Your task to perform on an android device: turn off notifications in google photos Image 0: 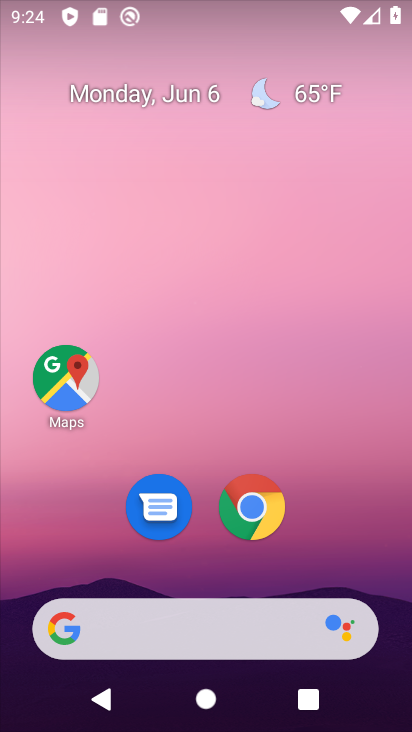
Step 0: drag from (311, 552) to (331, 251)
Your task to perform on an android device: turn off notifications in google photos Image 1: 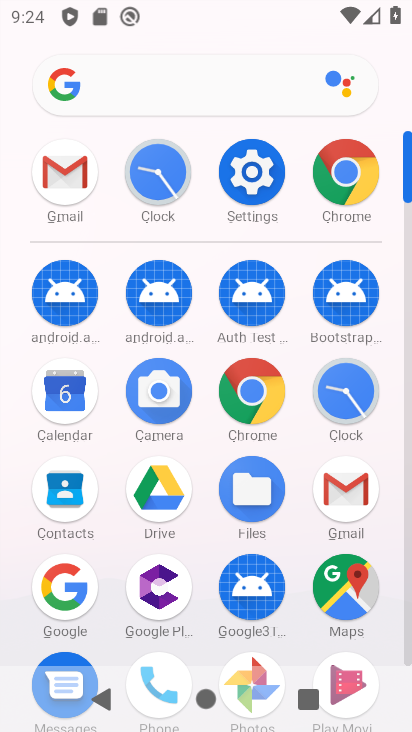
Step 1: drag from (216, 647) to (237, 413)
Your task to perform on an android device: turn off notifications in google photos Image 2: 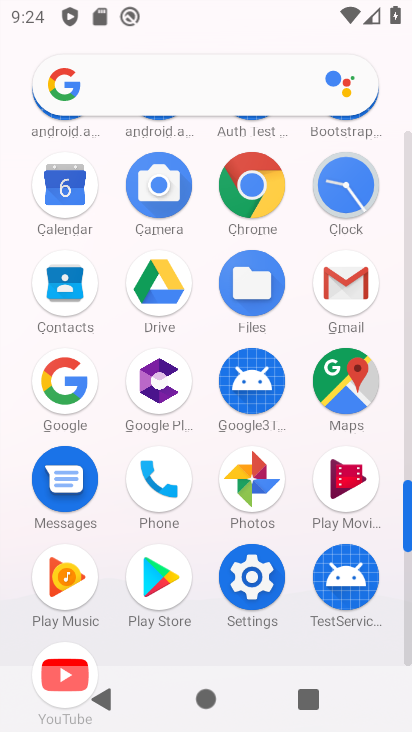
Step 2: click (253, 476)
Your task to perform on an android device: turn off notifications in google photos Image 3: 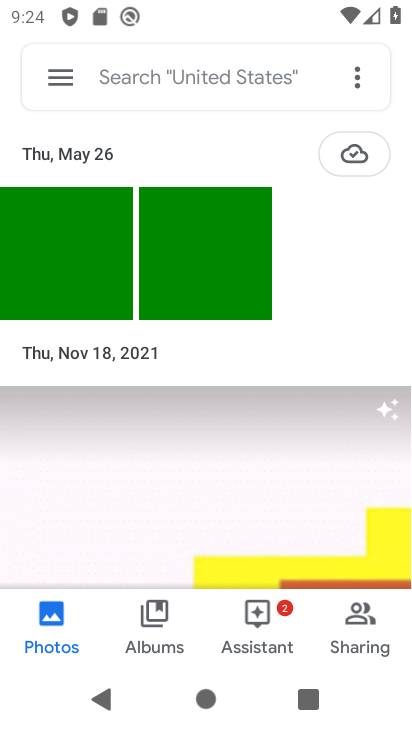
Step 3: click (53, 75)
Your task to perform on an android device: turn off notifications in google photos Image 4: 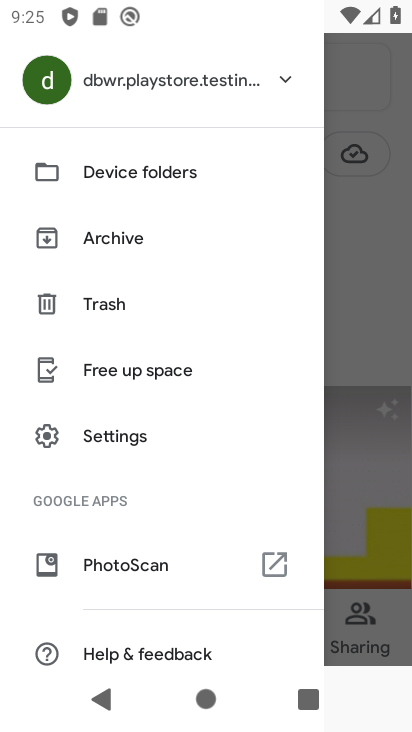
Step 4: click (91, 435)
Your task to perform on an android device: turn off notifications in google photos Image 5: 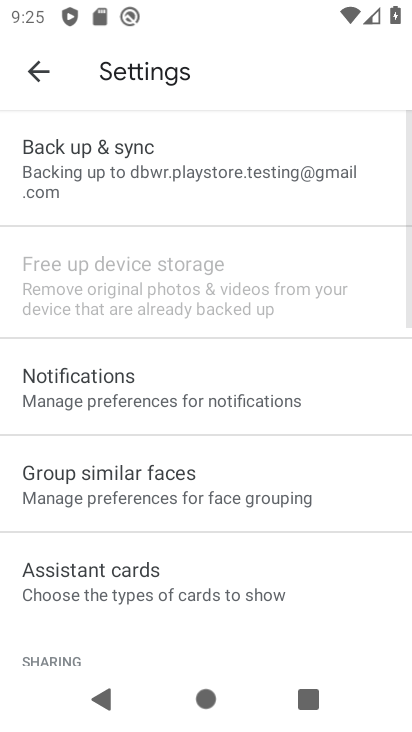
Step 5: click (88, 370)
Your task to perform on an android device: turn off notifications in google photos Image 6: 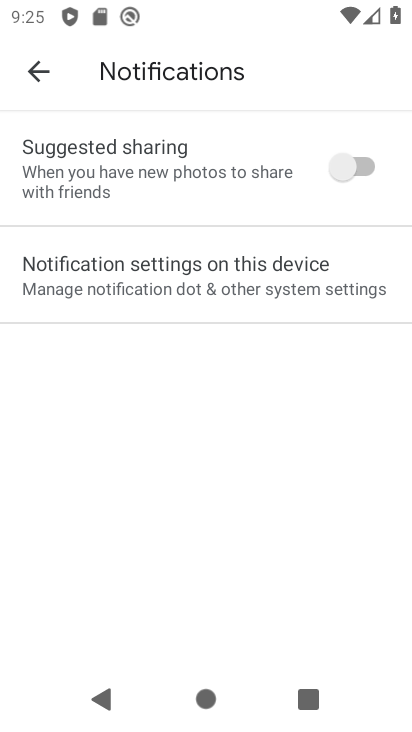
Step 6: click (222, 251)
Your task to perform on an android device: turn off notifications in google photos Image 7: 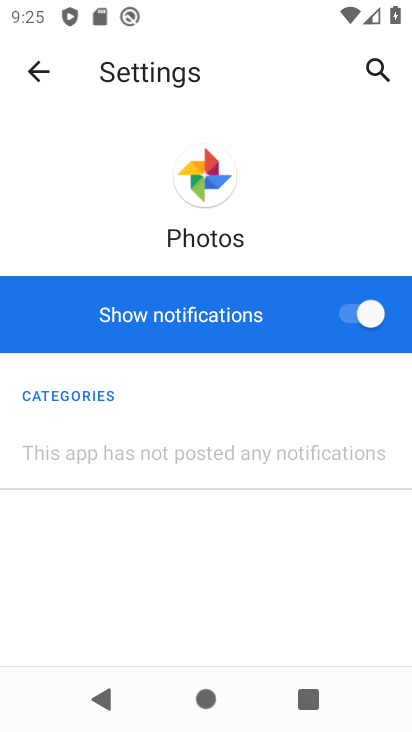
Step 7: click (350, 303)
Your task to perform on an android device: turn off notifications in google photos Image 8: 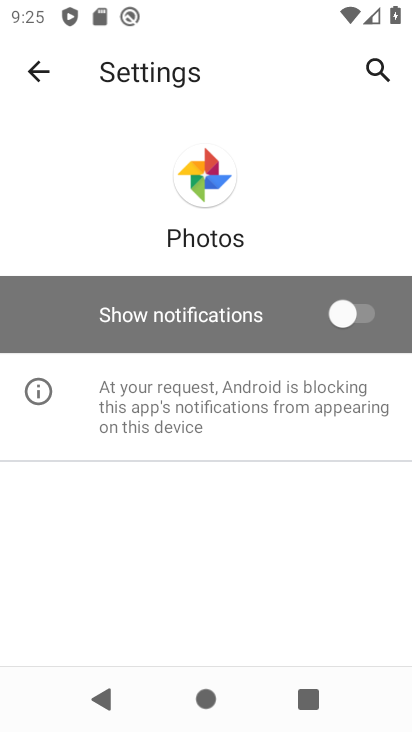
Step 8: task complete